Your task to perform on an android device: Search for sushi restaurants on Maps Image 0: 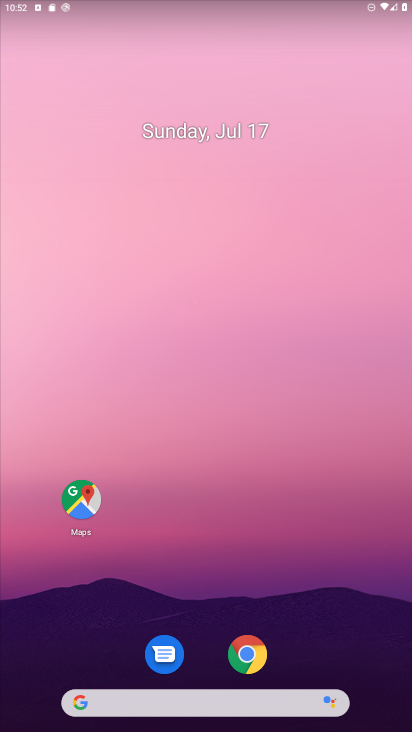
Step 0: click (77, 519)
Your task to perform on an android device: Search for sushi restaurants on Maps Image 1: 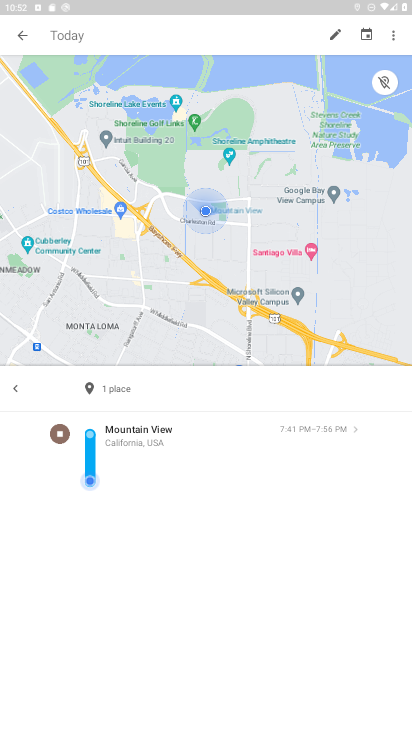
Step 1: click (20, 39)
Your task to perform on an android device: Search for sushi restaurants on Maps Image 2: 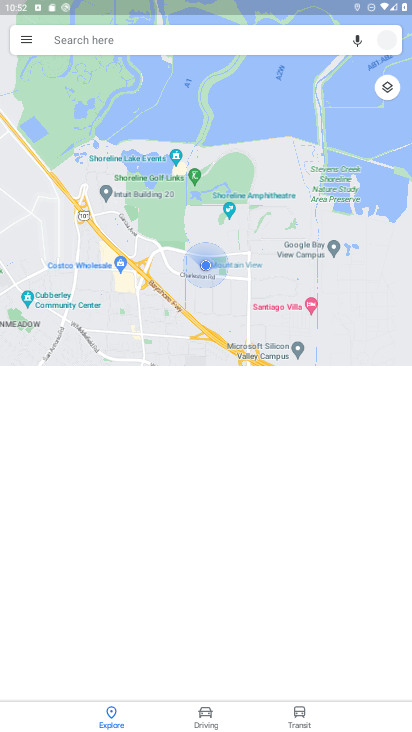
Step 2: click (105, 38)
Your task to perform on an android device: Search for sushi restaurants on Maps Image 3: 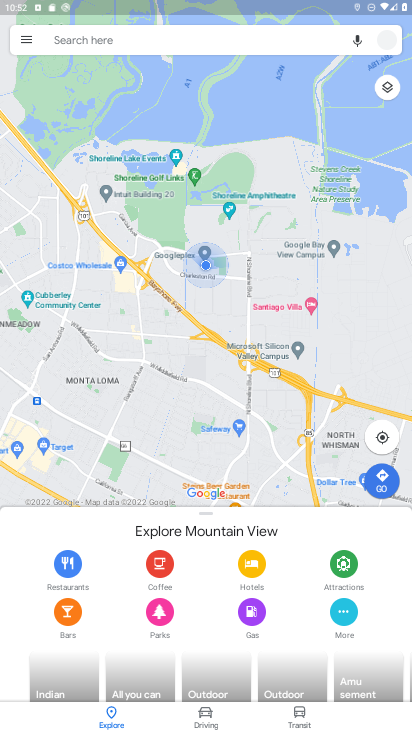
Step 3: click (77, 40)
Your task to perform on an android device: Search for sushi restaurants on Maps Image 4: 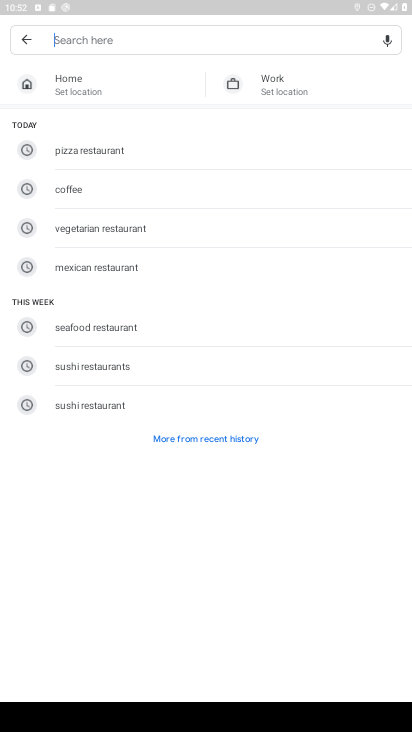
Step 4: type "sushi restaurants"
Your task to perform on an android device: Search for sushi restaurants on Maps Image 5: 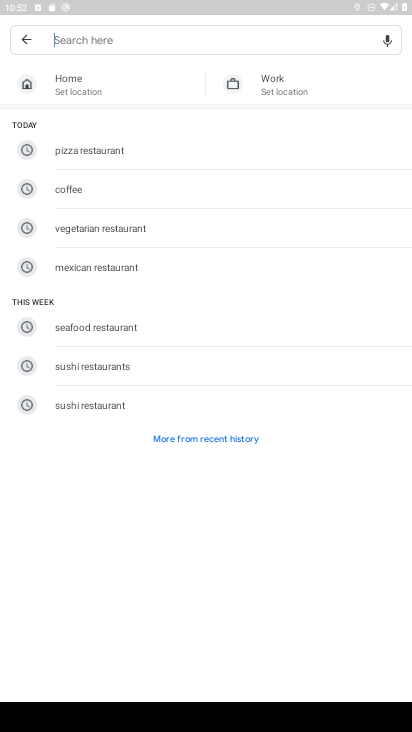
Step 5: click (106, 369)
Your task to perform on an android device: Search for sushi restaurants on Maps Image 6: 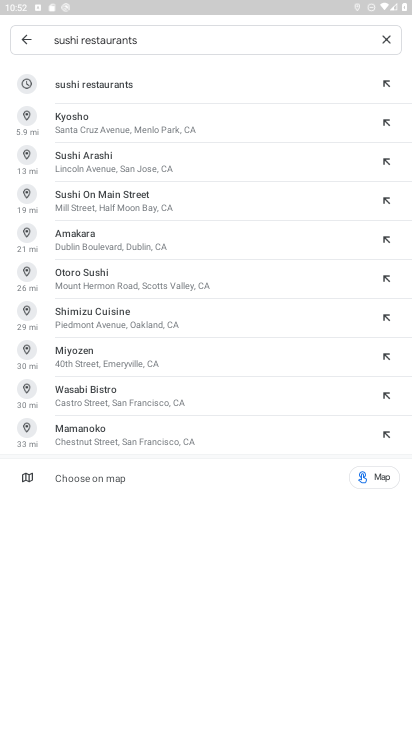
Step 6: click (90, 86)
Your task to perform on an android device: Search for sushi restaurants on Maps Image 7: 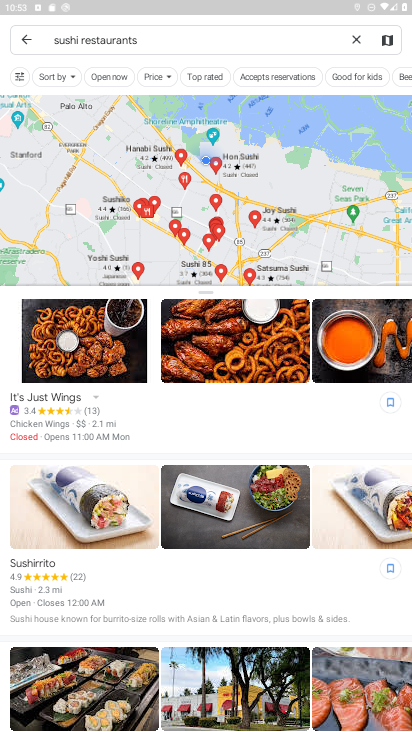
Step 7: task complete